Your task to perform on an android device: check android version Image 0: 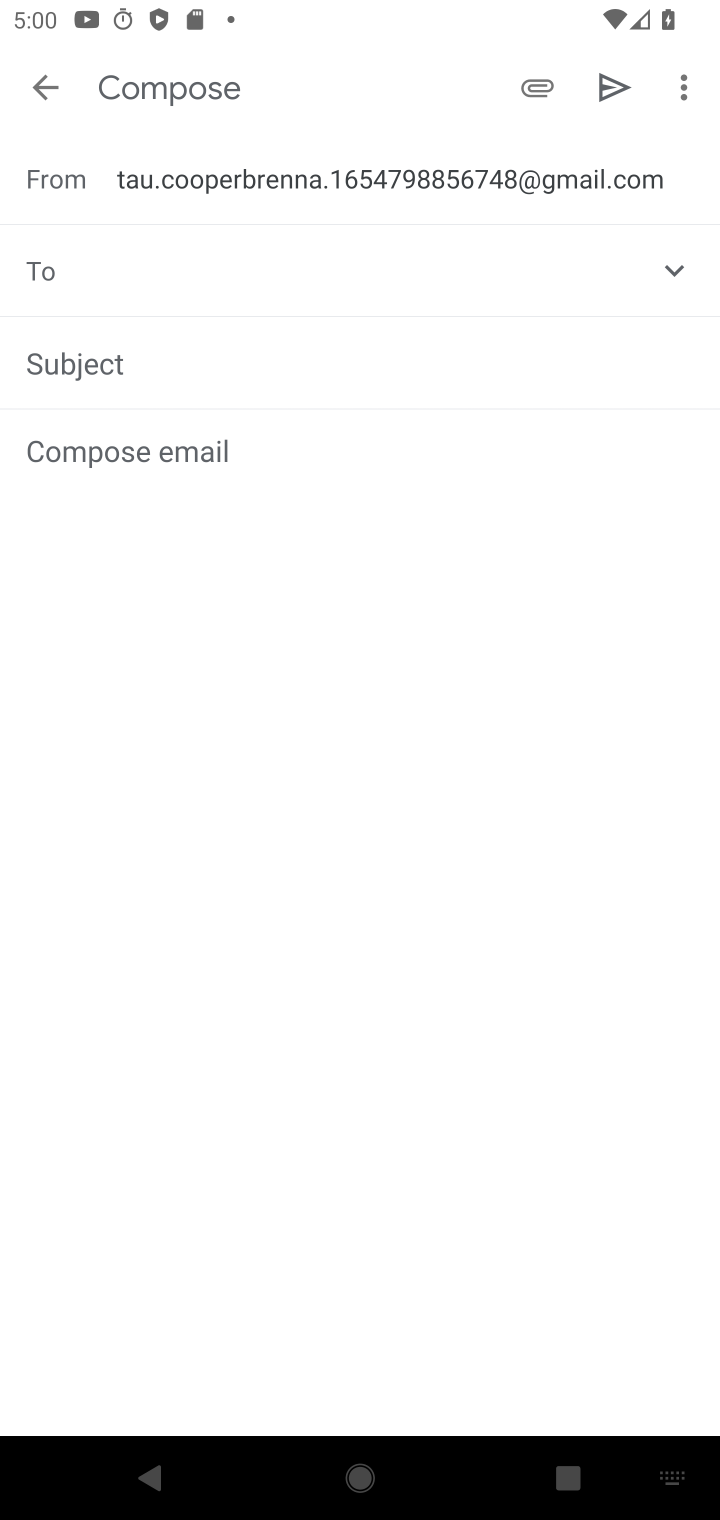
Step 0: press home button
Your task to perform on an android device: check android version Image 1: 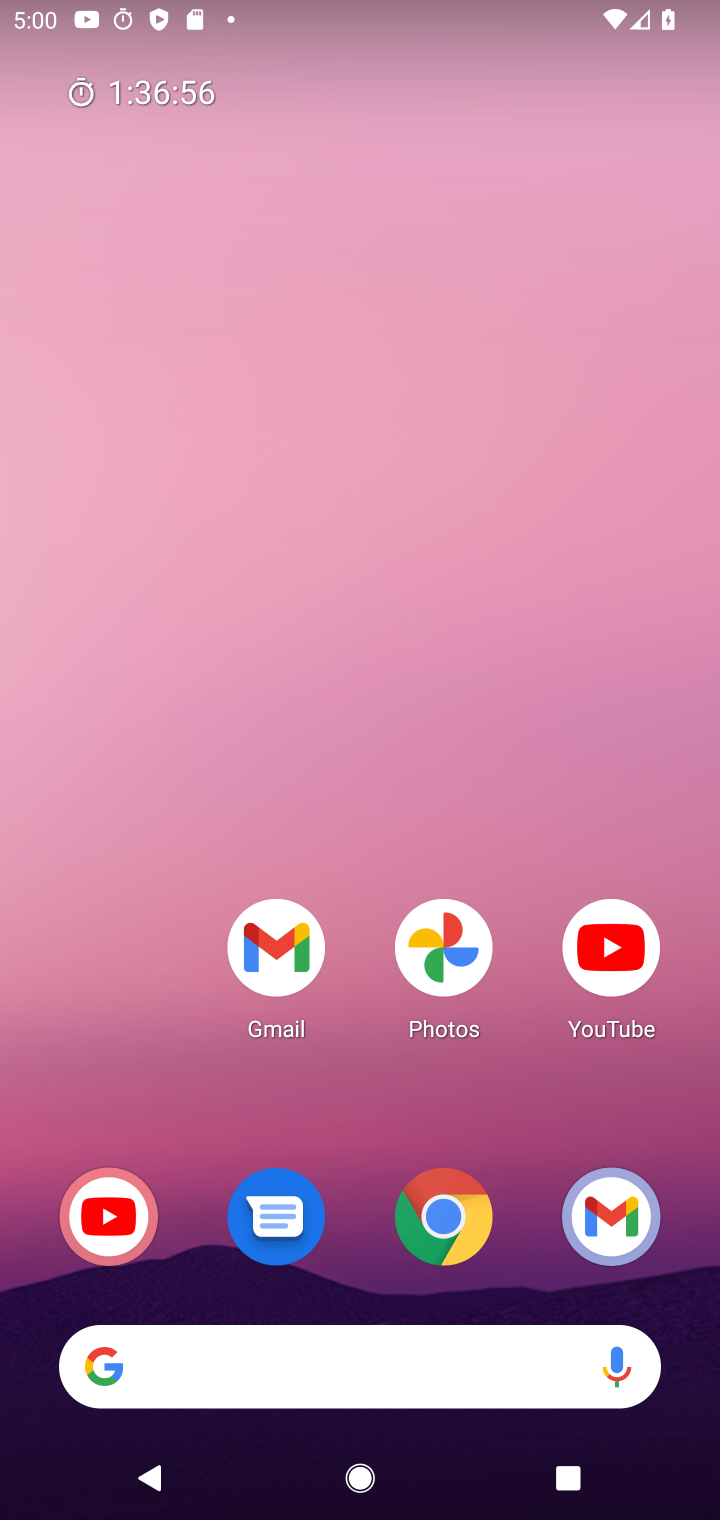
Step 1: drag from (176, 1283) to (615, 256)
Your task to perform on an android device: check android version Image 2: 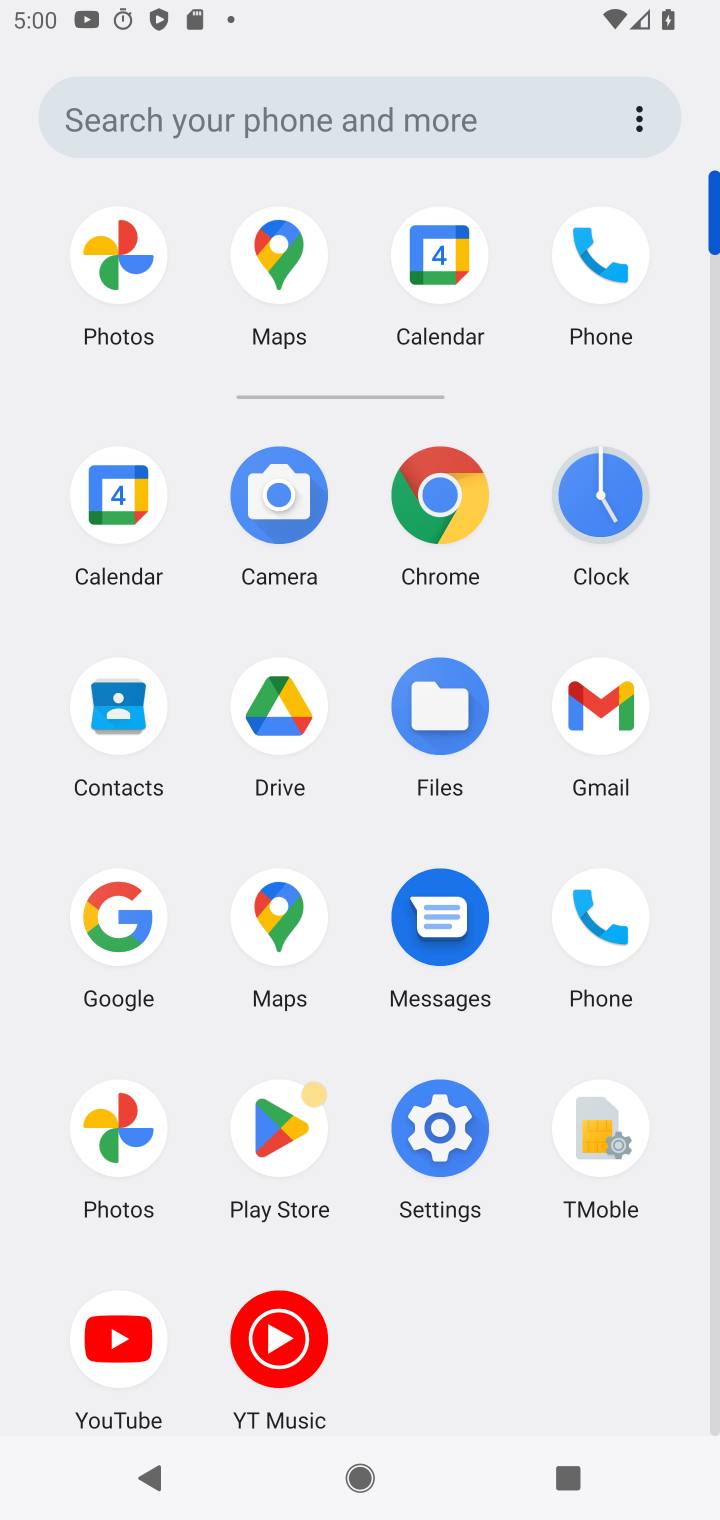
Step 2: click (430, 1124)
Your task to perform on an android device: check android version Image 3: 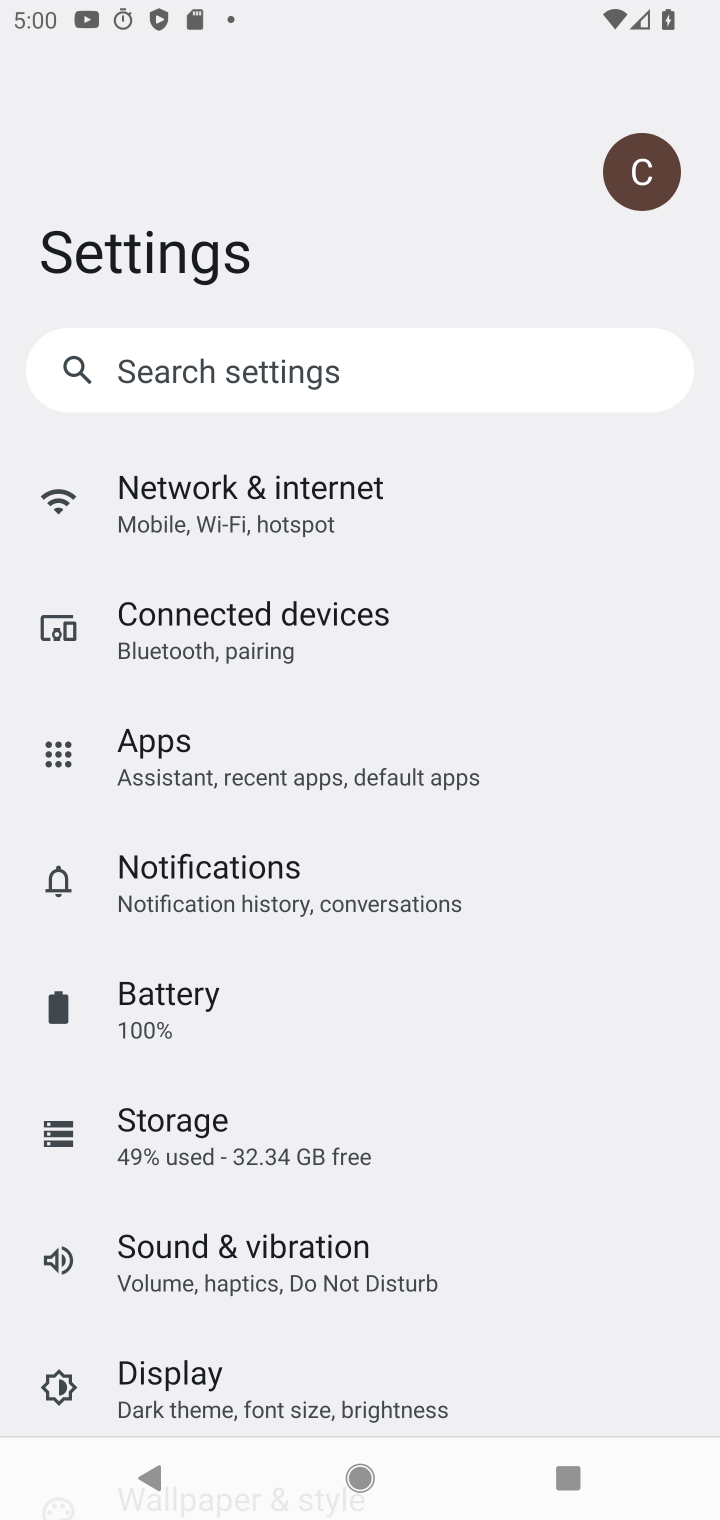
Step 3: drag from (18, 1227) to (478, 77)
Your task to perform on an android device: check android version Image 4: 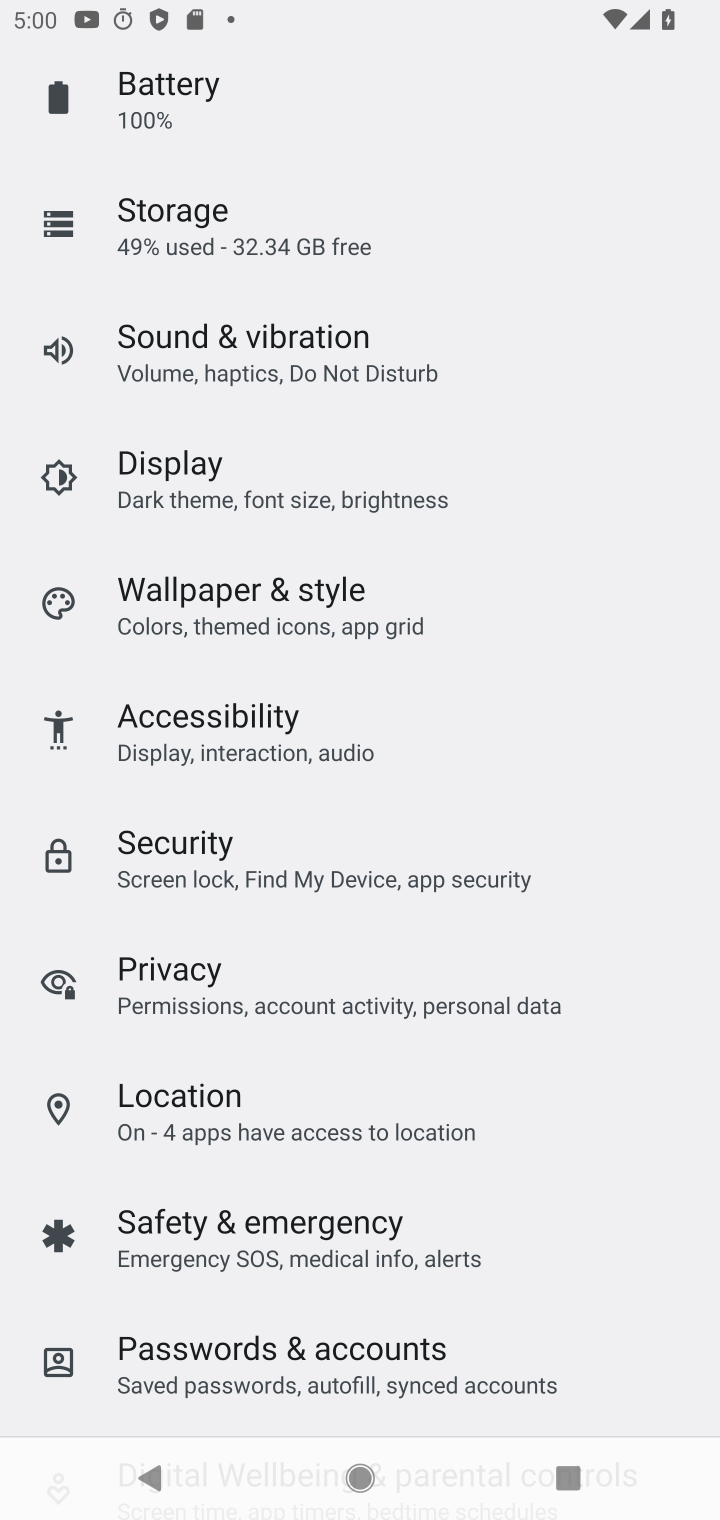
Step 4: drag from (4, 1133) to (634, 14)
Your task to perform on an android device: check android version Image 5: 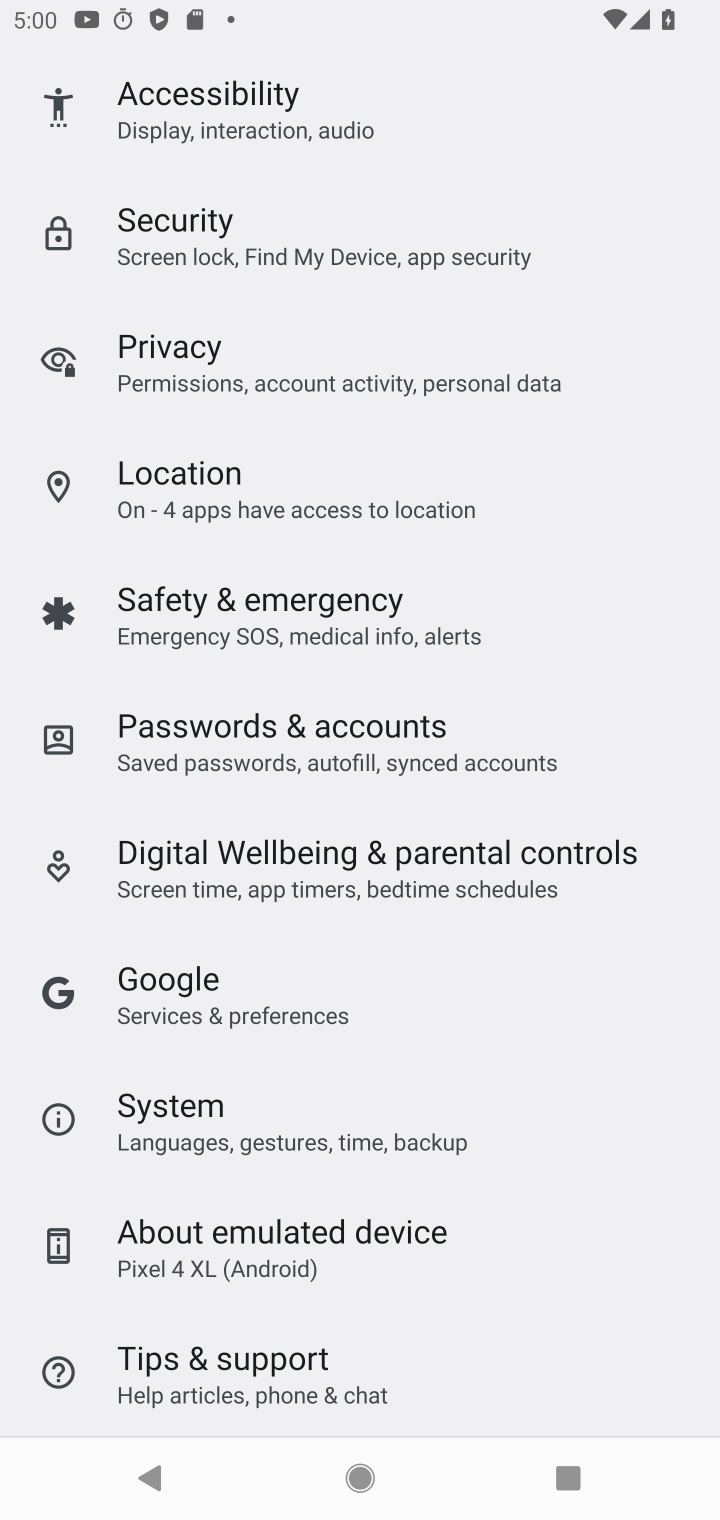
Step 5: click (161, 1238)
Your task to perform on an android device: check android version Image 6: 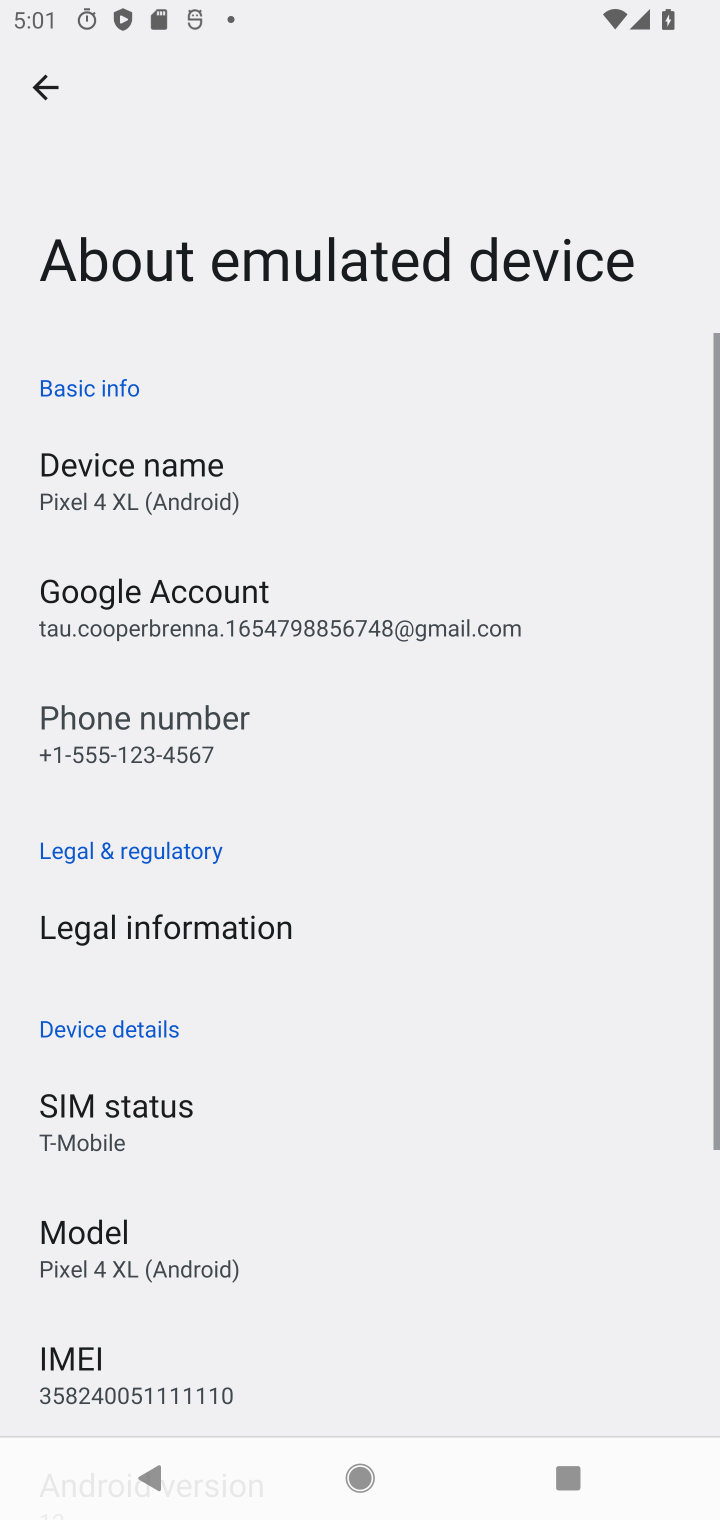
Step 6: task complete